Your task to perform on an android device: see tabs open on other devices in the chrome app Image 0: 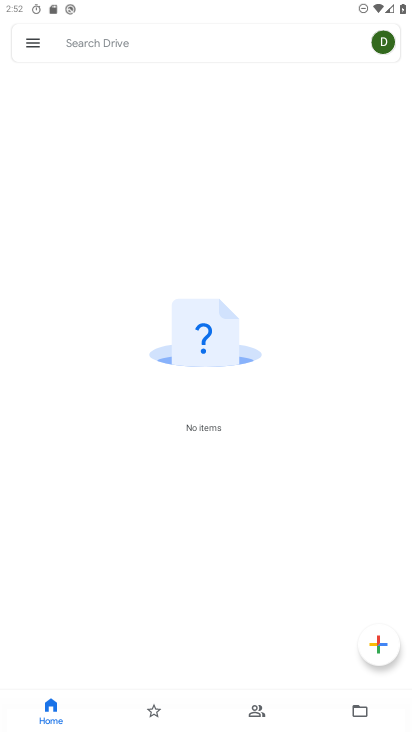
Step 0: press home button
Your task to perform on an android device: see tabs open on other devices in the chrome app Image 1: 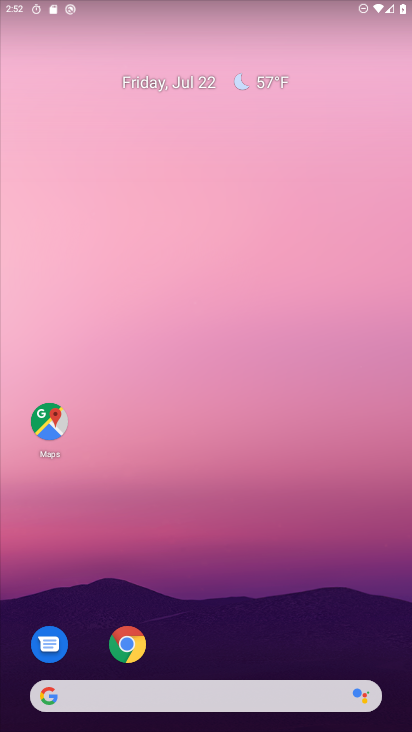
Step 1: click (133, 651)
Your task to perform on an android device: see tabs open on other devices in the chrome app Image 2: 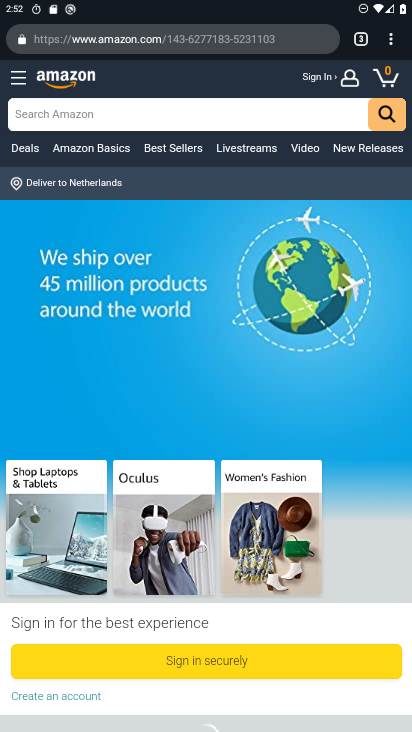
Step 2: click (391, 41)
Your task to perform on an android device: see tabs open on other devices in the chrome app Image 3: 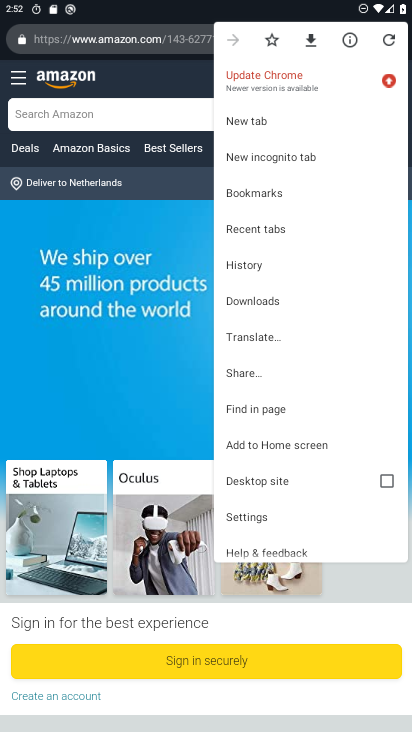
Step 3: click (282, 231)
Your task to perform on an android device: see tabs open on other devices in the chrome app Image 4: 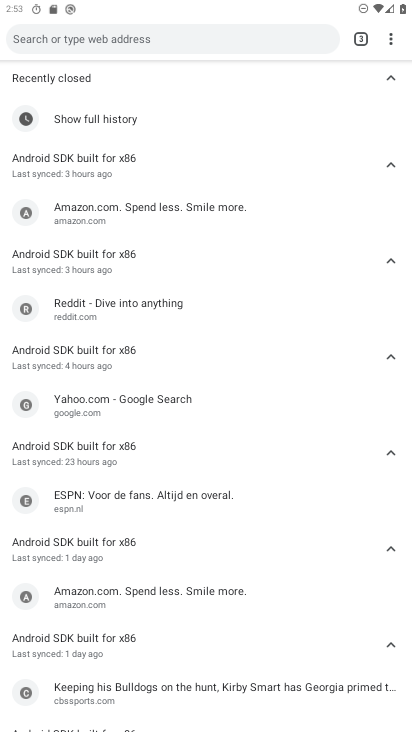
Step 4: task complete